Your task to perform on an android device: Go to Android settings Image 0: 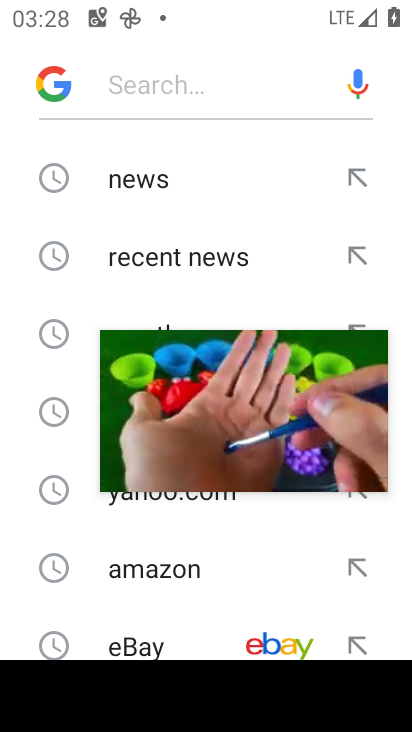
Step 0: press home button
Your task to perform on an android device: Go to Android settings Image 1: 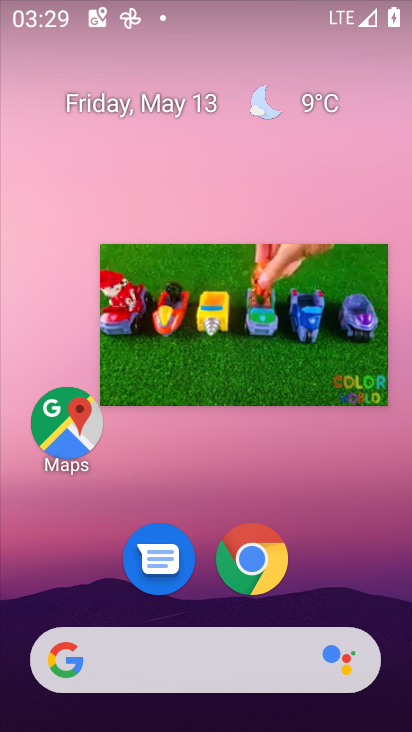
Step 1: click (249, 569)
Your task to perform on an android device: Go to Android settings Image 2: 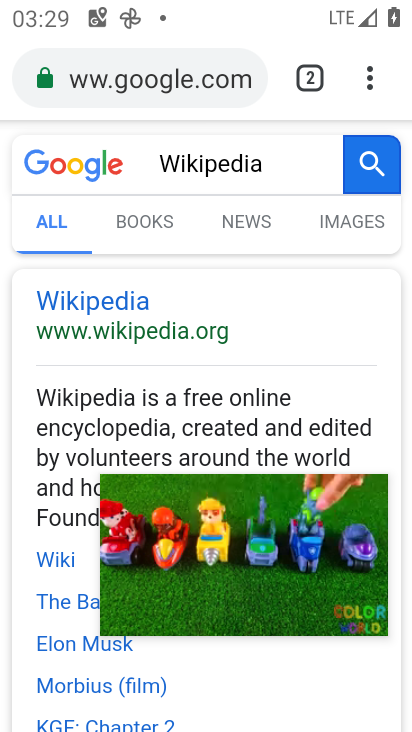
Step 2: press back button
Your task to perform on an android device: Go to Android settings Image 3: 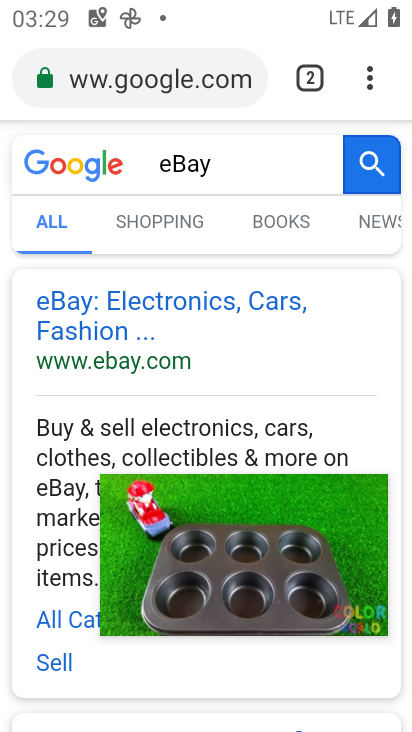
Step 3: press back button
Your task to perform on an android device: Go to Android settings Image 4: 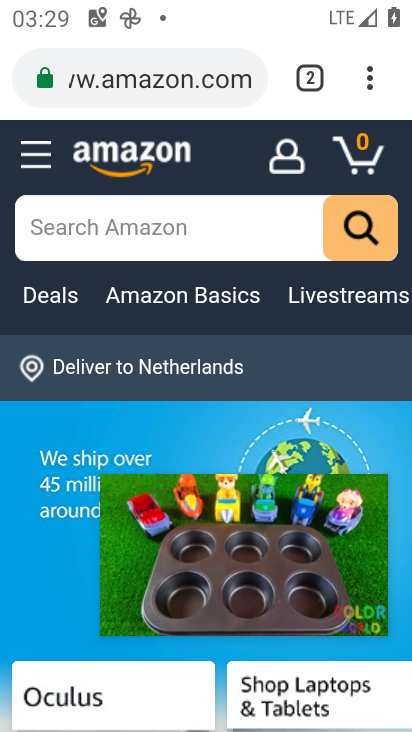
Step 4: click (315, 76)
Your task to perform on an android device: Go to Android settings Image 5: 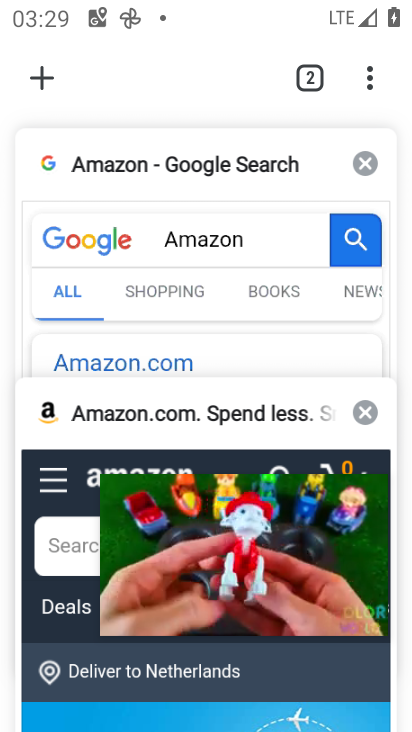
Step 5: click (364, 416)
Your task to perform on an android device: Go to Android settings Image 6: 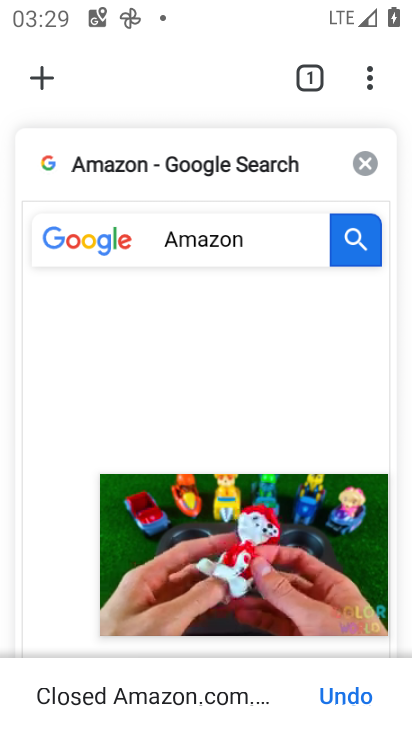
Step 6: click (362, 166)
Your task to perform on an android device: Go to Android settings Image 7: 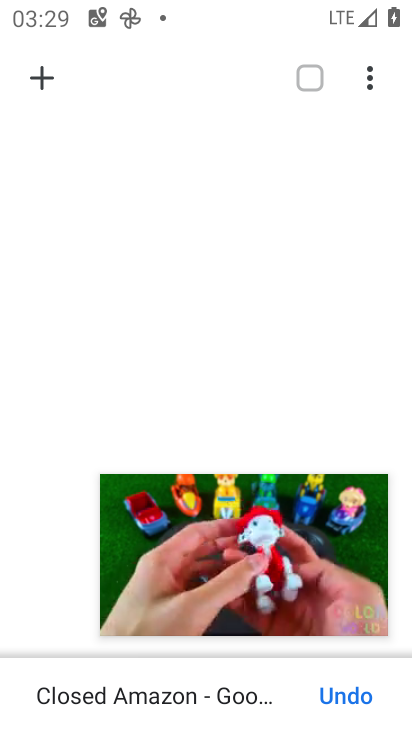
Step 7: click (362, 165)
Your task to perform on an android device: Go to Android settings Image 8: 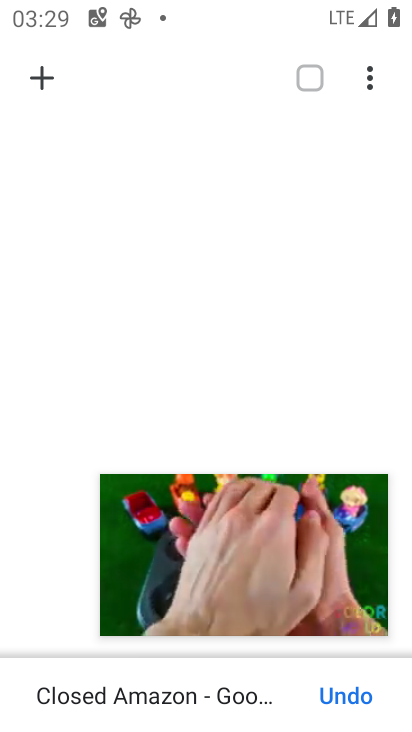
Step 8: click (45, 80)
Your task to perform on an android device: Go to Android settings Image 9: 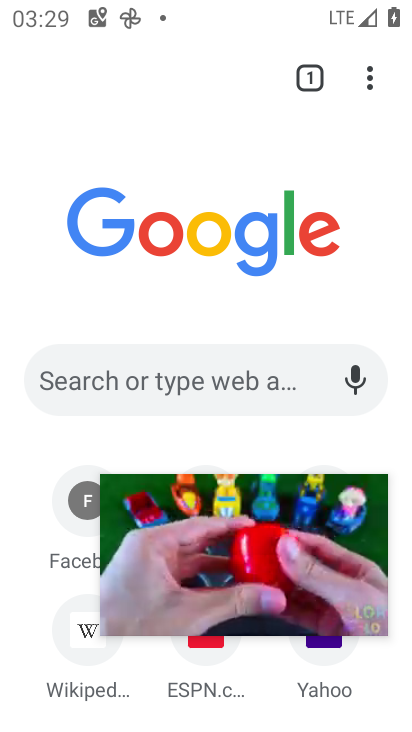
Step 9: click (369, 76)
Your task to perform on an android device: Go to Android settings Image 10: 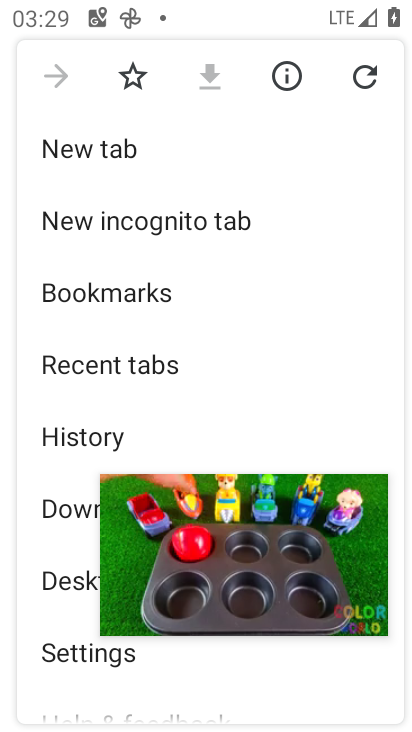
Step 10: click (58, 651)
Your task to perform on an android device: Go to Android settings Image 11: 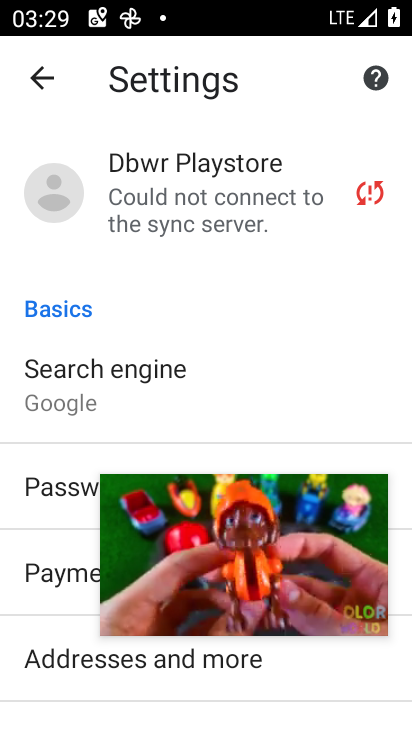
Step 11: drag from (57, 520) to (68, 265)
Your task to perform on an android device: Go to Android settings Image 12: 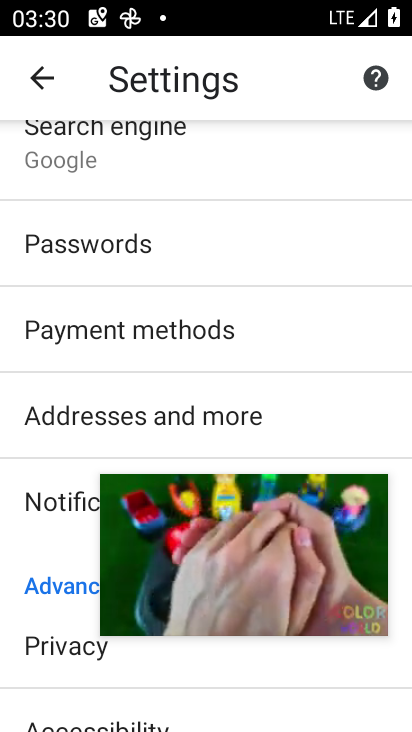
Step 12: drag from (45, 662) to (76, 353)
Your task to perform on an android device: Go to Android settings Image 13: 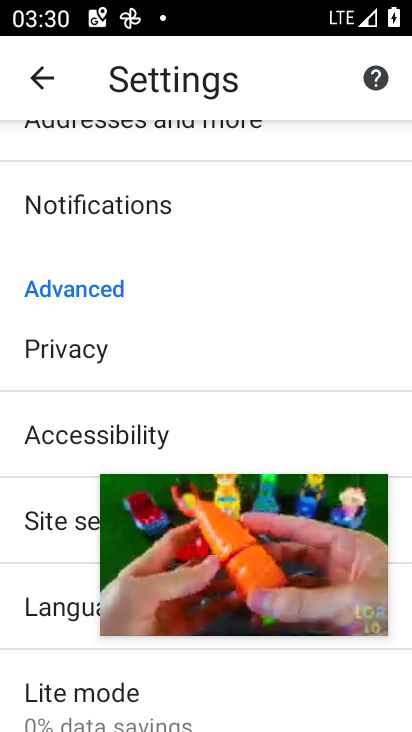
Step 13: drag from (44, 656) to (58, 372)
Your task to perform on an android device: Go to Android settings Image 14: 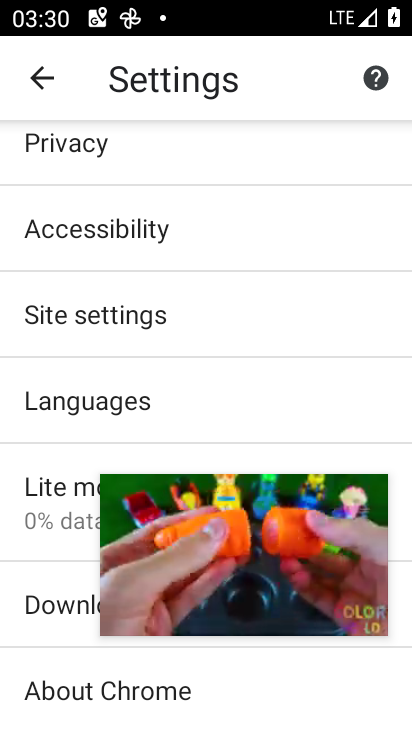
Step 14: drag from (65, 317) to (41, 568)
Your task to perform on an android device: Go to Android settings Image 15: 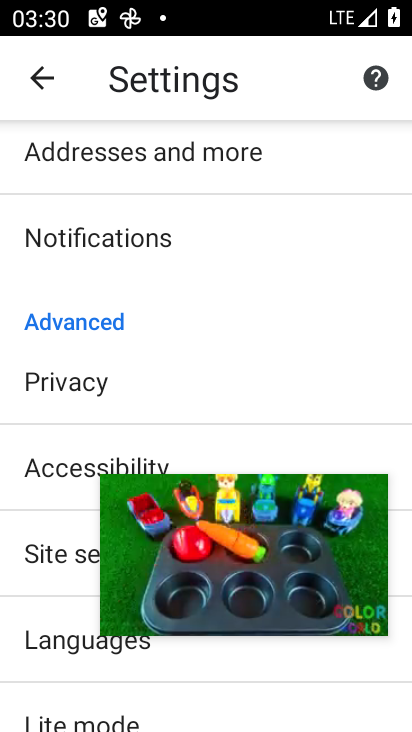
Step 15: drag from (92, 229) to (65, 549)
Your task to perform on an android device: Go to Android settings Image 16: 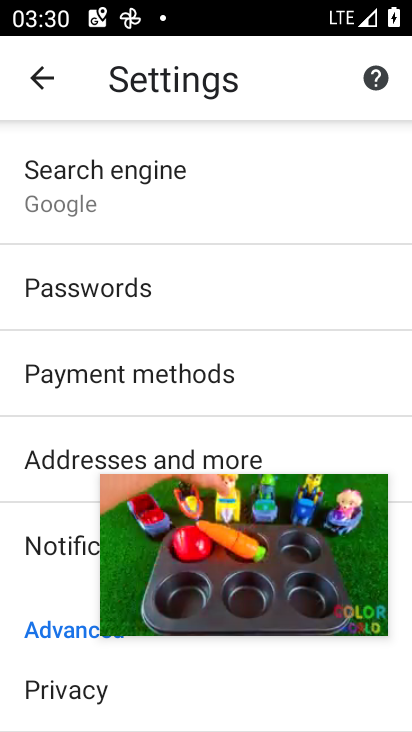
Step 16: drag from (61, 214) to (43, 474)
Your task to perform on an android device: Go to Android settings Image 17: 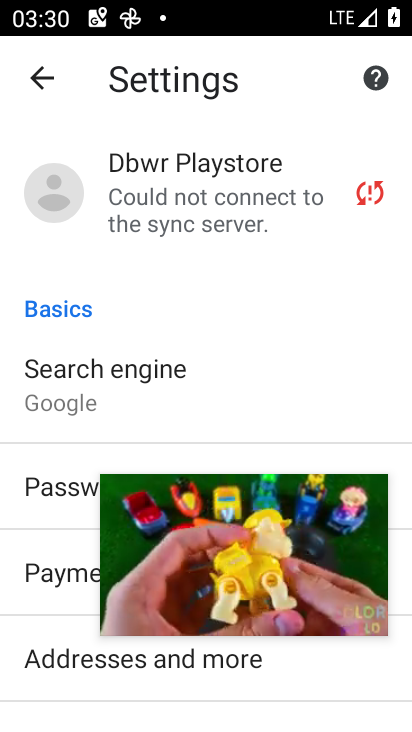
Step 17: click (32, 76)
Your task to perform on an android device: Go to Android settings Image 18: 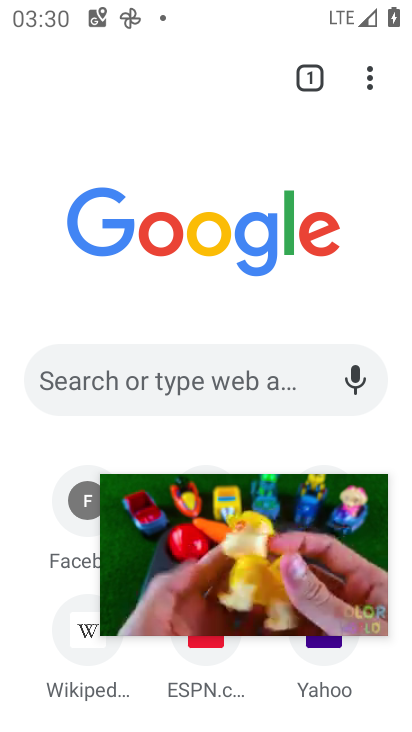
Step 18: click (32, 76)
Your task to perform on an android device: Go to Android settings Image 19: 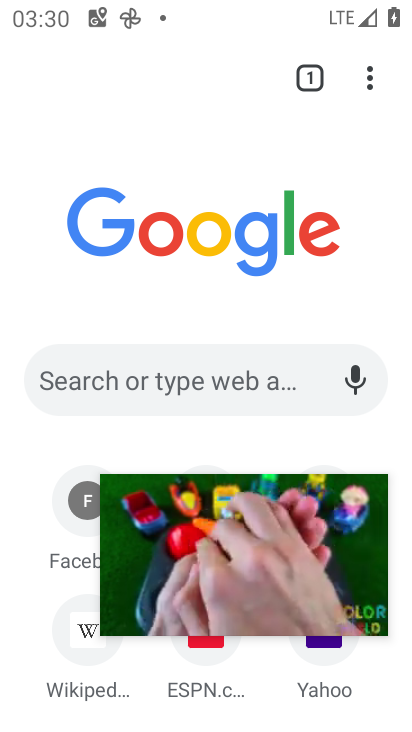
Step 19: press back button
Your task to perform on an android device: Go to Android settings Image 20: 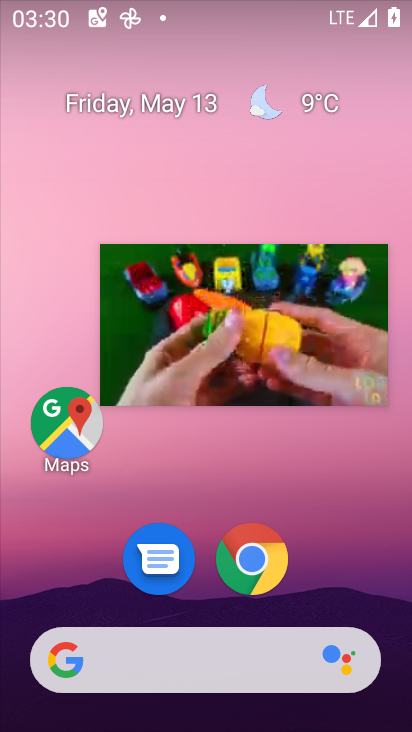
Step 20: drag from (381, 610) to (371, 208)
Your task to perform on an android device: Go to Android settings Image 21: 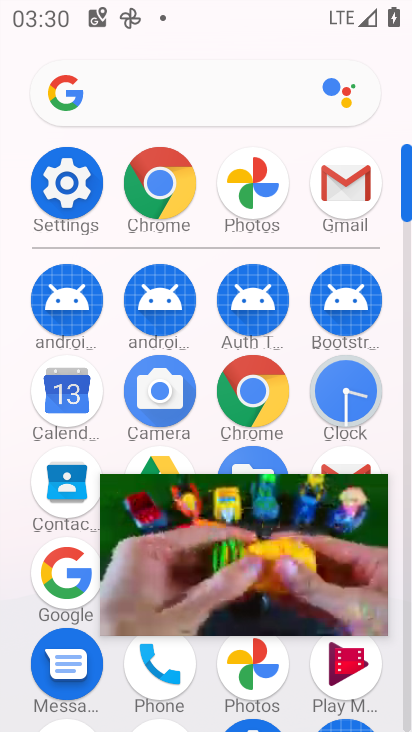
Step 21: click (78, 188)
Your task to perform on an android device: Go to Android settings Image 22: 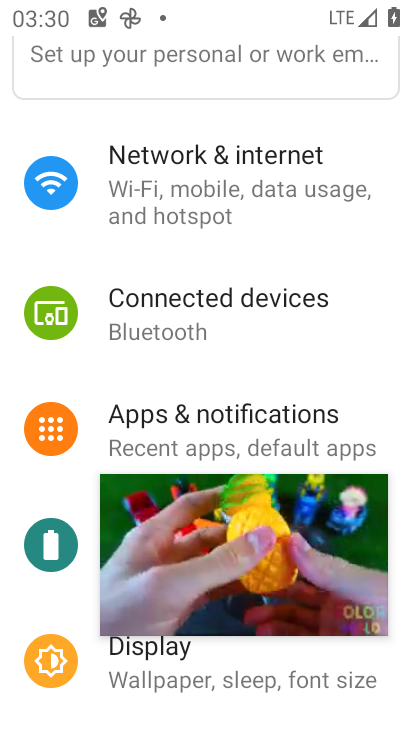
Step 22: task complete